Your task to perform on an android device: Open Reddit.com Image 0: 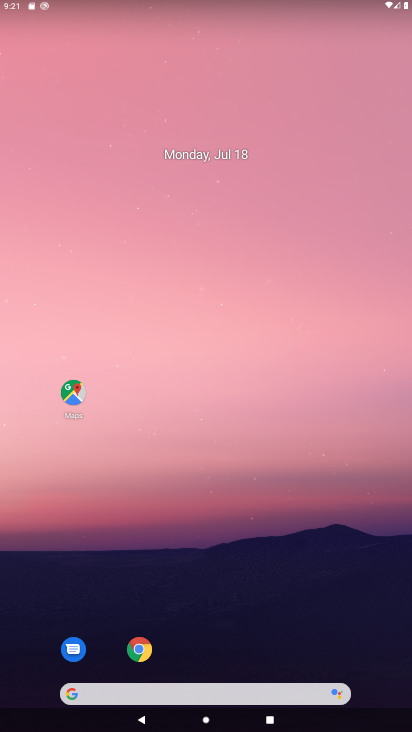
Step 0: drag from (240, 543) to (240, 22)
Your task to perform on an android device: Open Reddit.com Image 1: 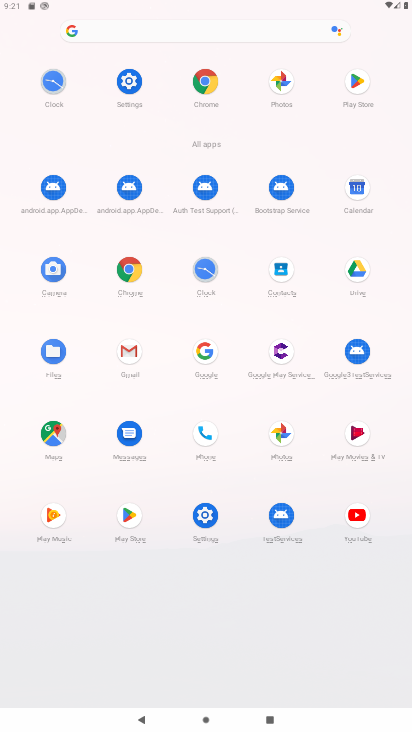
Step 1: click (209, 84)
Your task to perform on an android device: Open Reddit.com Image 2: 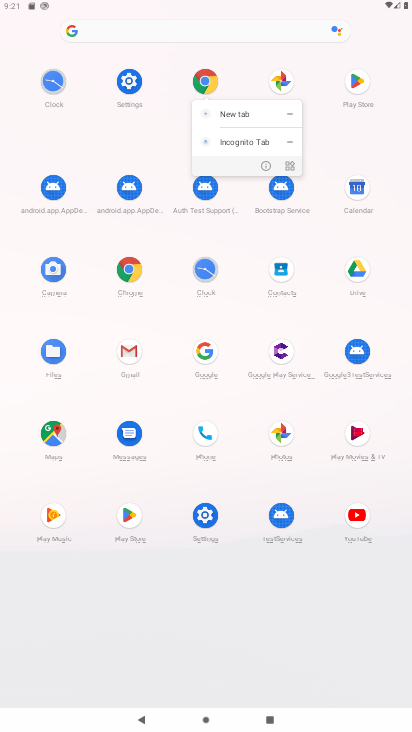
Step 2: click (198, 81)
Your task to perform on an android device: Open Reddit.com Image 3: 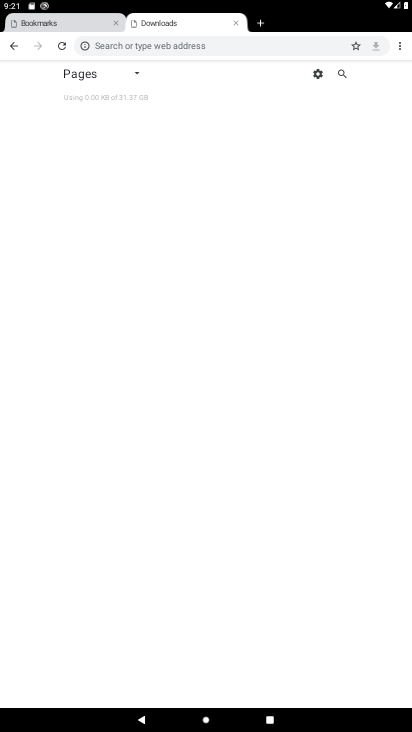
Step 3: click (254, 25)
Your task to perform on an android device: Open Reddit.com Image 4: 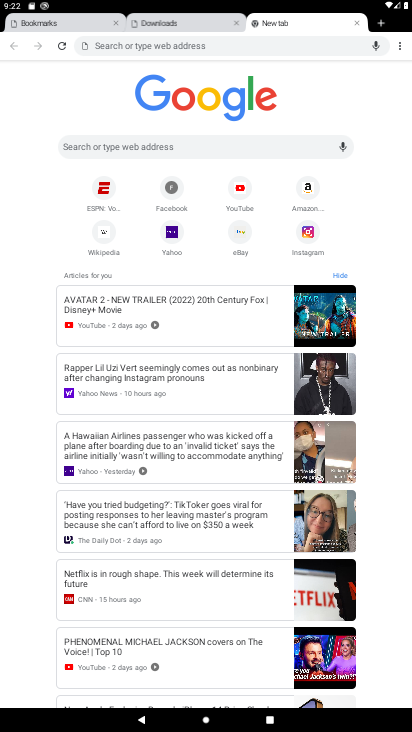
Step 4: type "Reddit.com"
Your task to perform on an android device: Open Reddit.com Image 5: 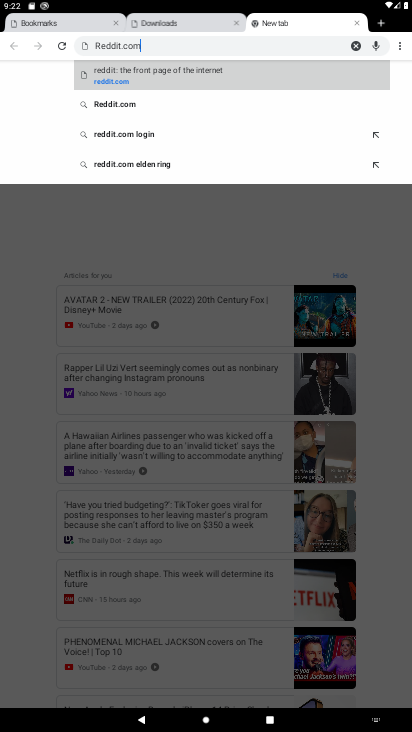
Step 5: press enter
Your task to perform on an android device: Open Reddit.com Image 6: 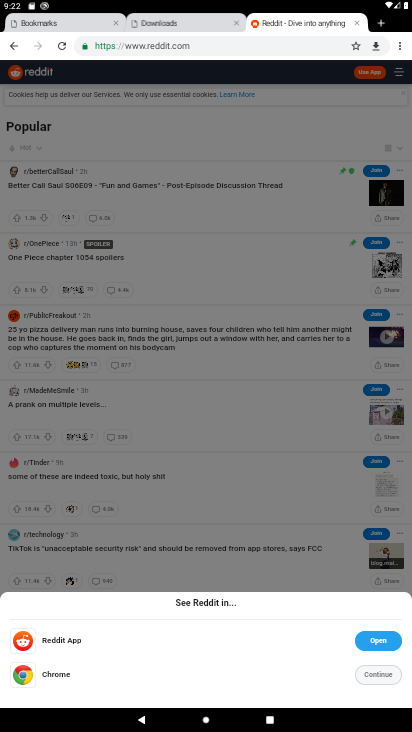
Step 6: task complete